Your task to perform on an android device: turn on the 12-hour format for clock Image 0: 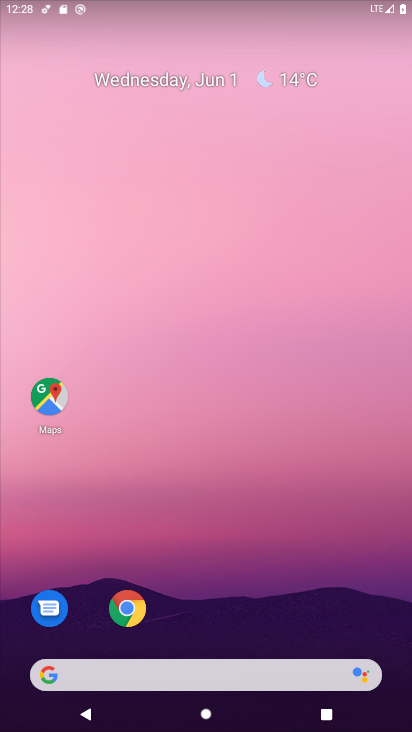
Step 0: drag from (238, 613) to (255, 400)
Your task to perform on an android device: turn on the 12-hour format for clock Image 1: 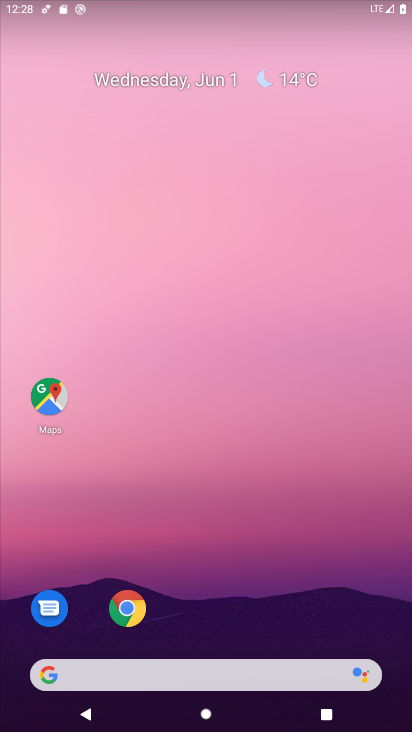
Step 1: drag from (192, 591) to (384, 0)
Your task to perform on an android device: turn on the 12-hour format for clock Image 2: 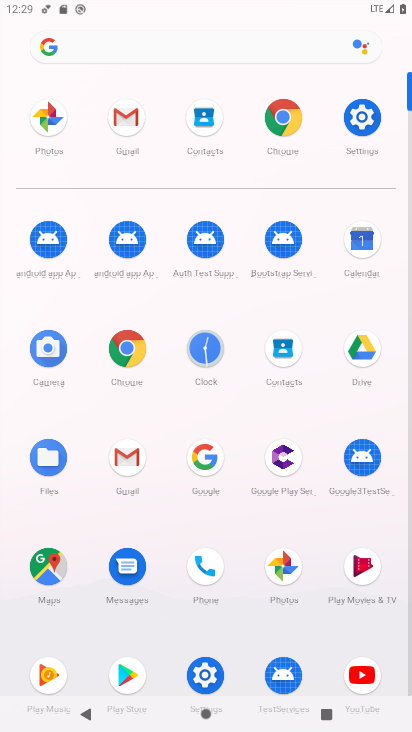
Step 2: click (361, 138)
Your task to perform on an android device: turn on the 12-hour format for clock Image 3: 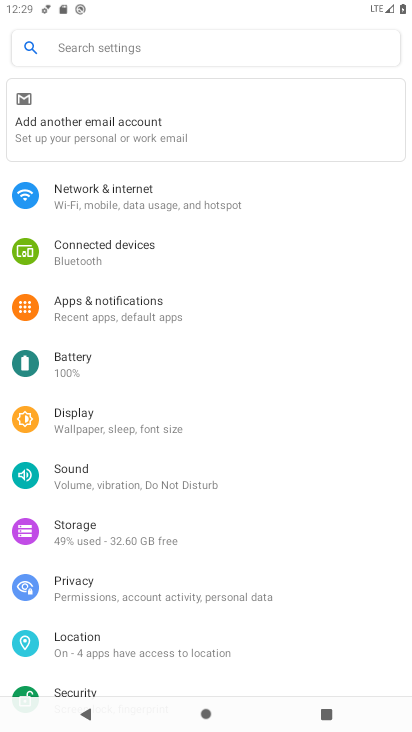
Step 3: drag from (200, 628) to (228, 339)
Your task to perform on an android device: turn on the 12-hour format for clock Image 4: 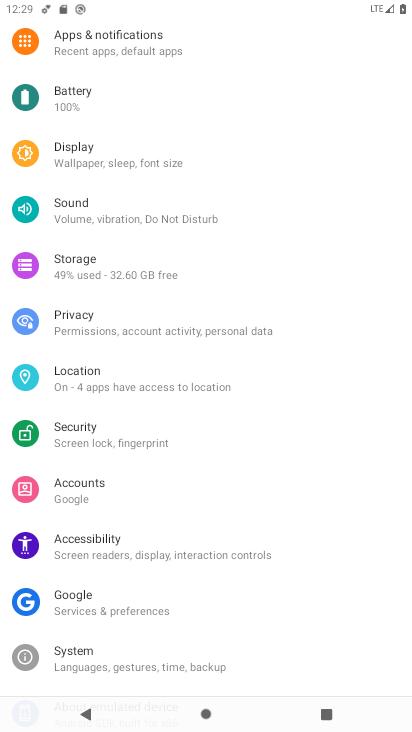
Step 4: click (105, 661)
Your task to perform on an android device: turn on the 12-hour format for clock Image 5: 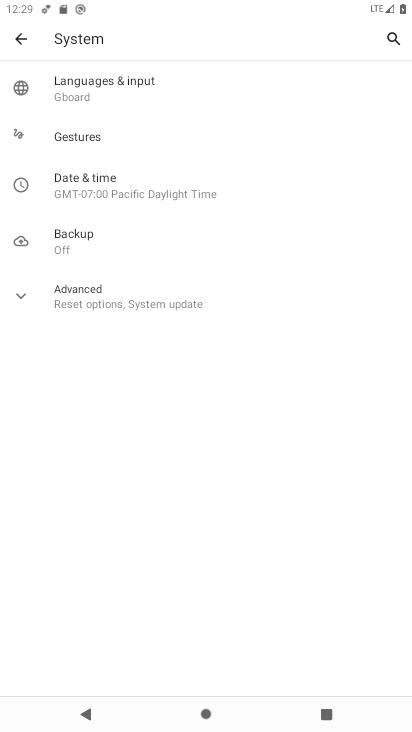
Step 5: click (109, 192)
Your task to perform on an android device: turn on the 12-hour format for clock Image 6: 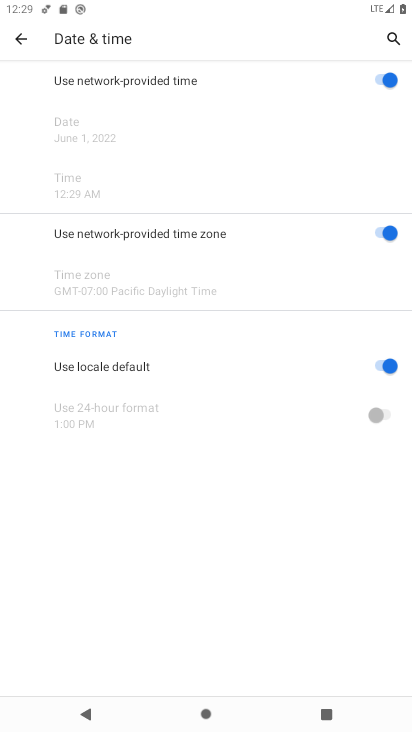
Step 6: task complete